Your task to perform on an android device: Search for the Nintendo Switch. Image 0: 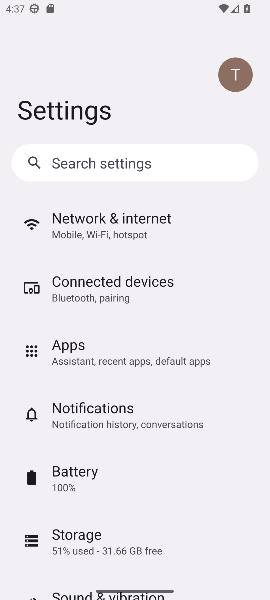
Step 0: press home button
Your task to perform on an android device: Search for the Nintendo Switch. Image 1: 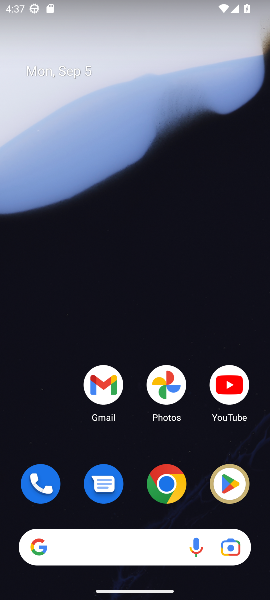
Step 1: click (173, 481)
Your task to perform on an android device: Search for the Nintendo Switch. Image 2: 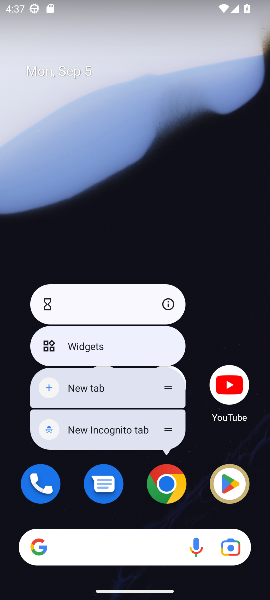
Step 2: click (166, 480)
Your task to perform on an android device: Search for the Nintendo Switch. Image 3: 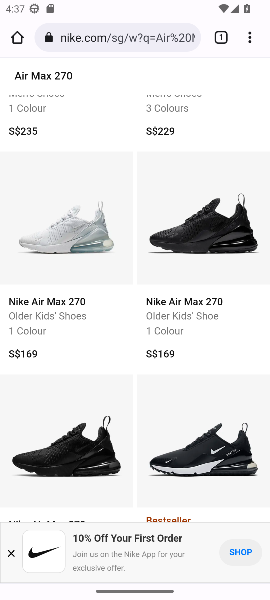
Step 3: click (178, 36)
Your task to perform on an android device: Search for the Nintendo Switch. Image 4: 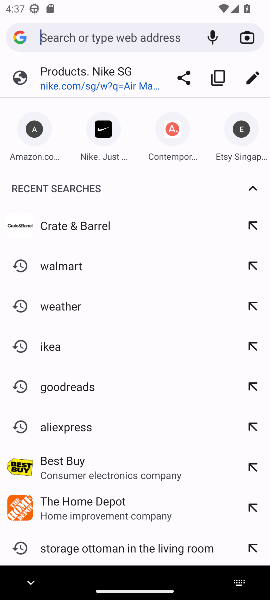
Step 4: type " Nintendo Switch"
Your task to perform on an android device: Search for the Nintendo Switch. Image 5: 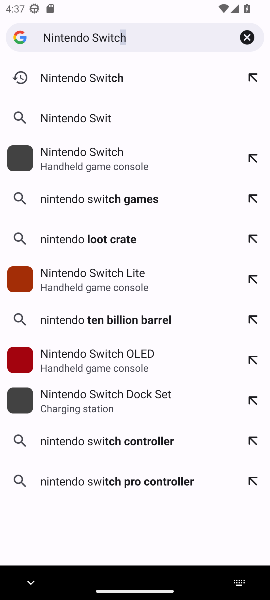
Step 5: press enter
Your task to perform on an android device: Search for the Nintendo Switch. Image 6: 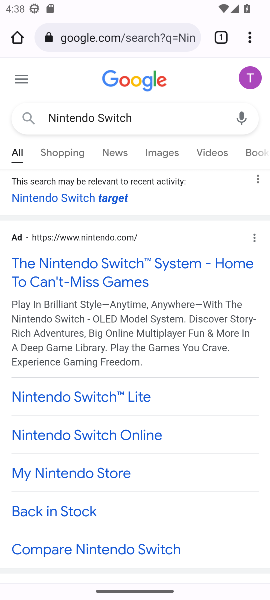
Step 6: drag from (96, 364) to (137, 129)
Your task to perform on an android device: Search for the Nintendo Switch. Image 7: 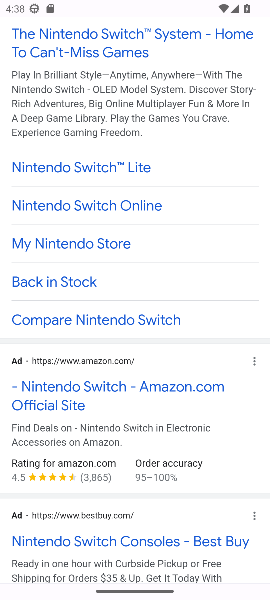
Step 7: drag from (130, 486) to (164, 240)
Your task to perform on an android device: Search for the Nintendo Switch. Image 8: 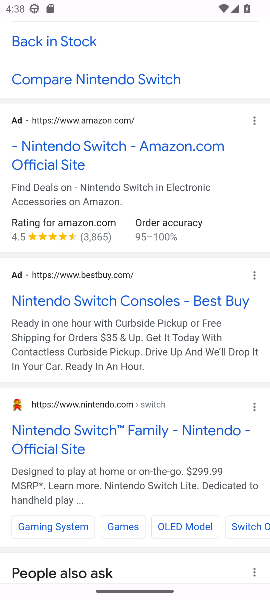
Step 8: drag from (181, 168) to (156, 505)
Your task to perform on an android device: Search for the Nintendo Switch. Image 9: 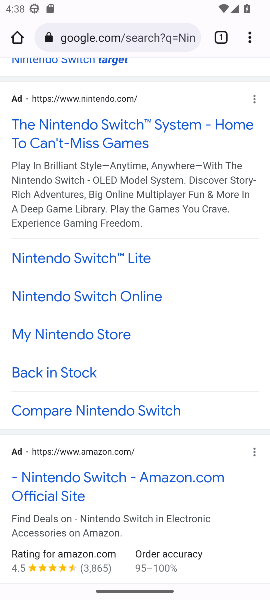
Step 9: drag from (134, 233) to (122, 477)
Your task to perform on an android device: Search for the Nintendo Switch. Image 10: 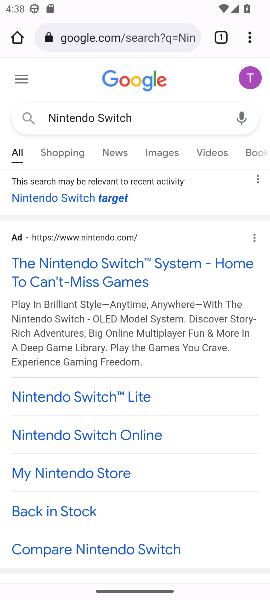
Step 10: click (113, 259)
Your task to perform on an android device: Search for the Nintendo Switch. Image 11: 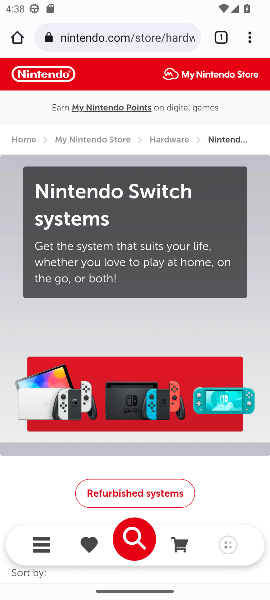
Step 11: task complete